Your task to perform on an android device: Is it going to rain tomorrow? Image 0: 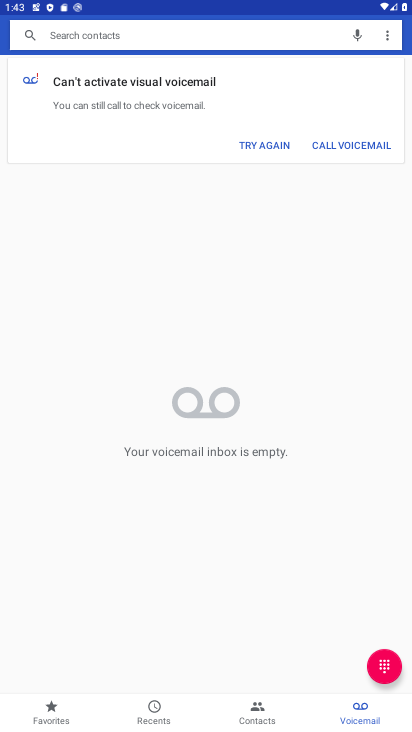
Step 0: press home button
Your task to perform on an android device: Is it going to rain tomorrow? Image 1: 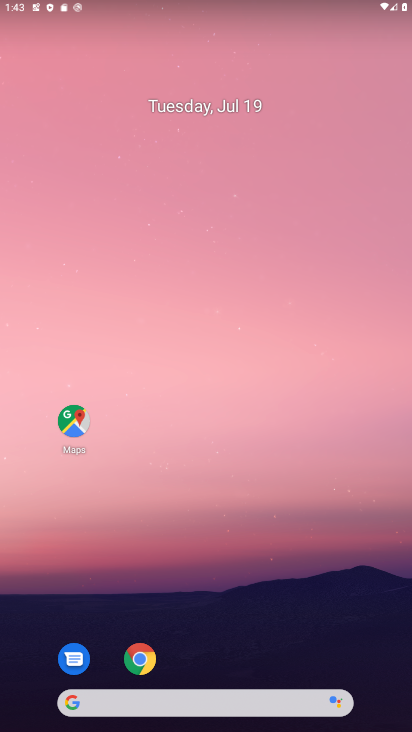
Step 1: click (144, 647)
Your task to perform on an android device: Is it going to rain tomorrow? Image 2: 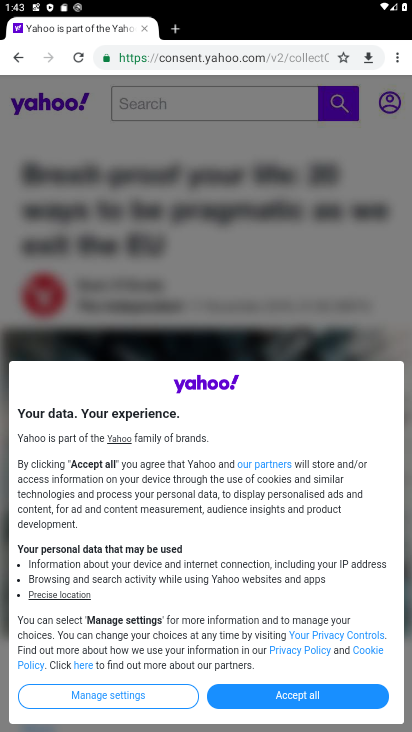
Step 2: click (268, 54)
Your task to perform on an android device: Is it going to rain tomorrow? Image 3: 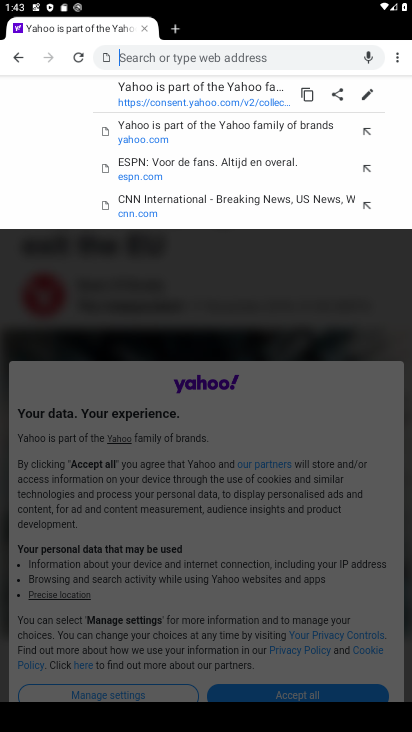
Step 3: type "Is it going to rain tomorrow?"
Your task to perform on an android device: Is it going to rain tomorrow? Image 4: 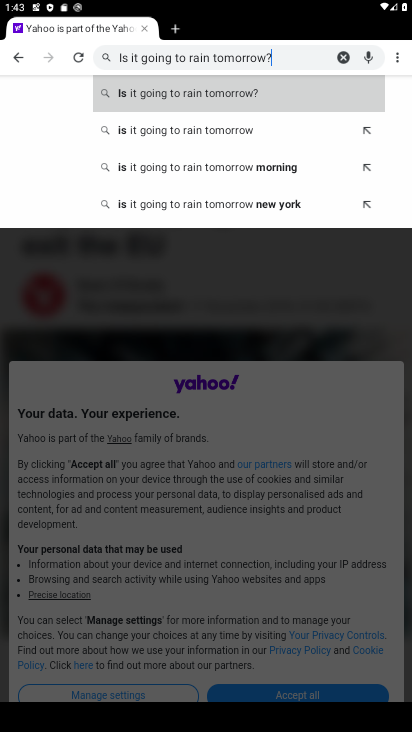
Step 4: type ""
Your task to perform on an android device: Is it going to rain tomorrow? Image 5: 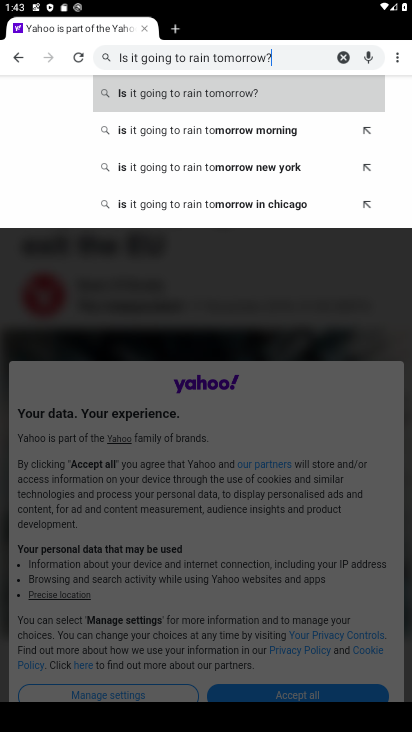
Step 5: click (239, 100)
Your task to perform on an android device: Is it going to rain tomorrow? Image 6: 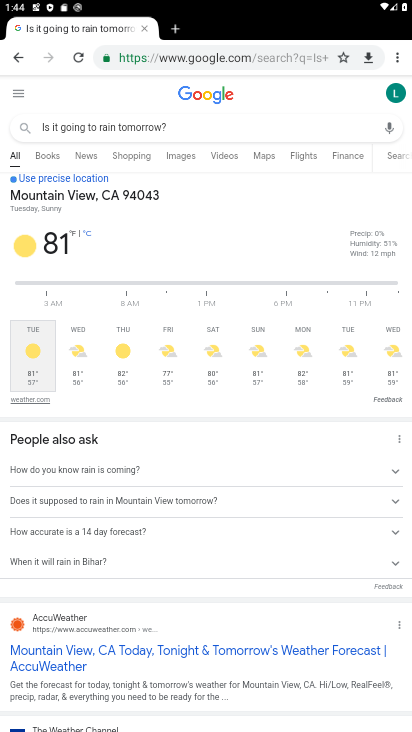
Step 6: task complete